Your task to perform on an android device: Go to ESPN.com Image 0: 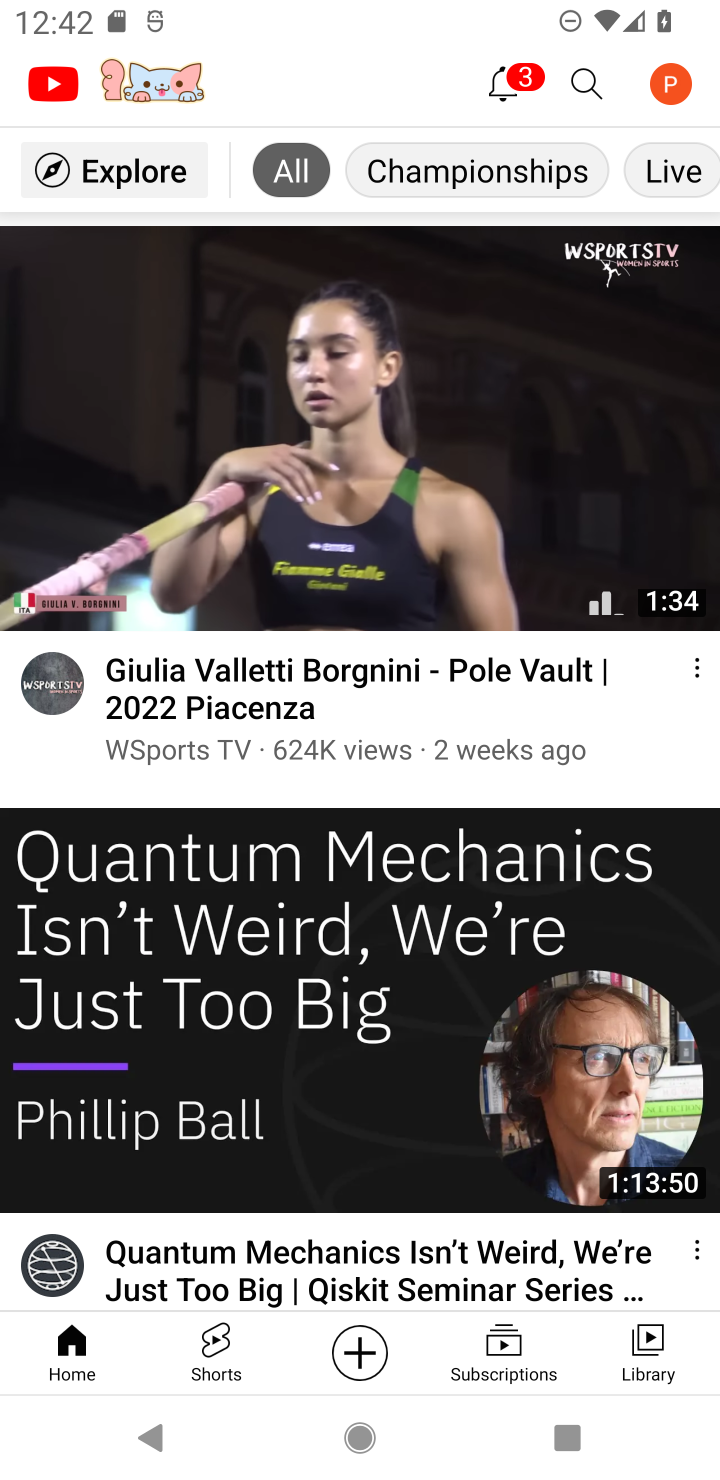
Step 0: press home button
Your task to perform on an android device: Go to ESPN.com Image 1: 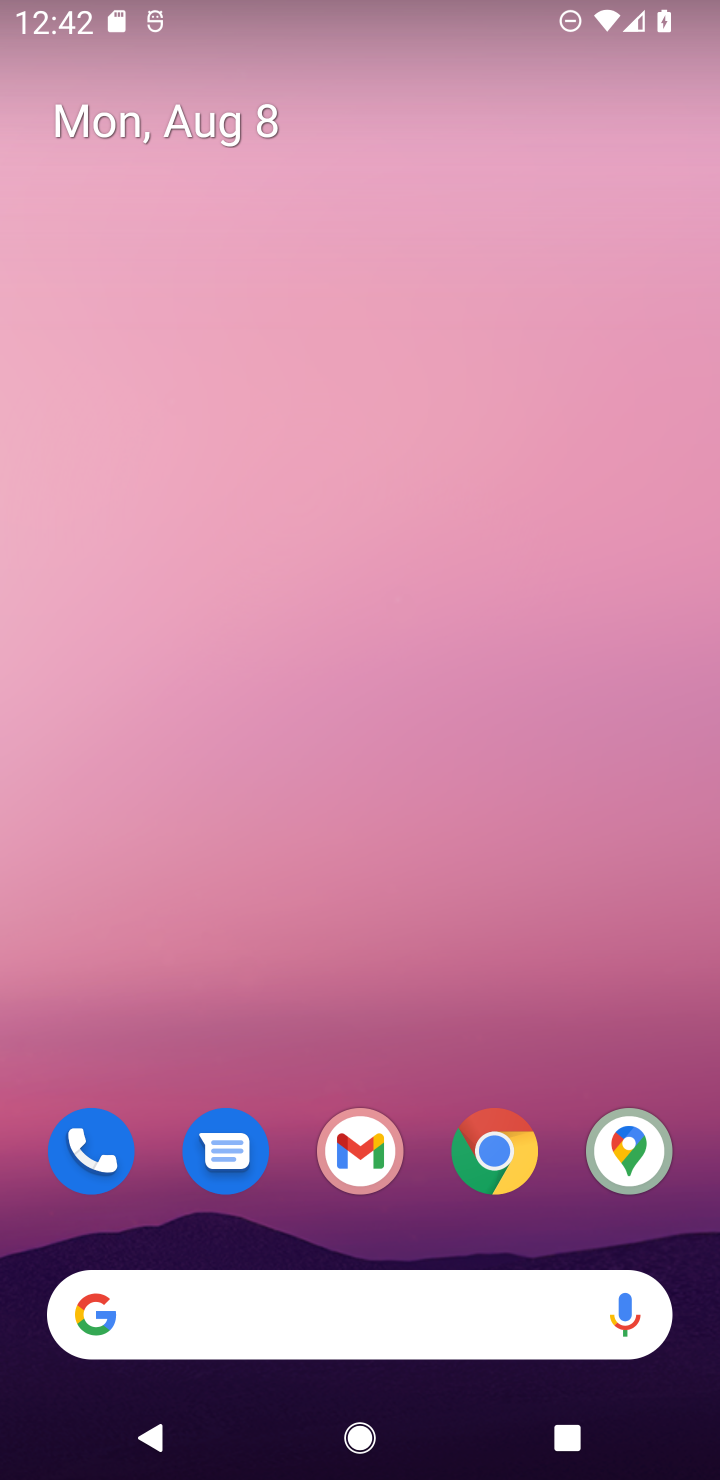
Step 1: click (502, 1153)
Your task to perform on an android device: Go to ESPN.com Image 2: 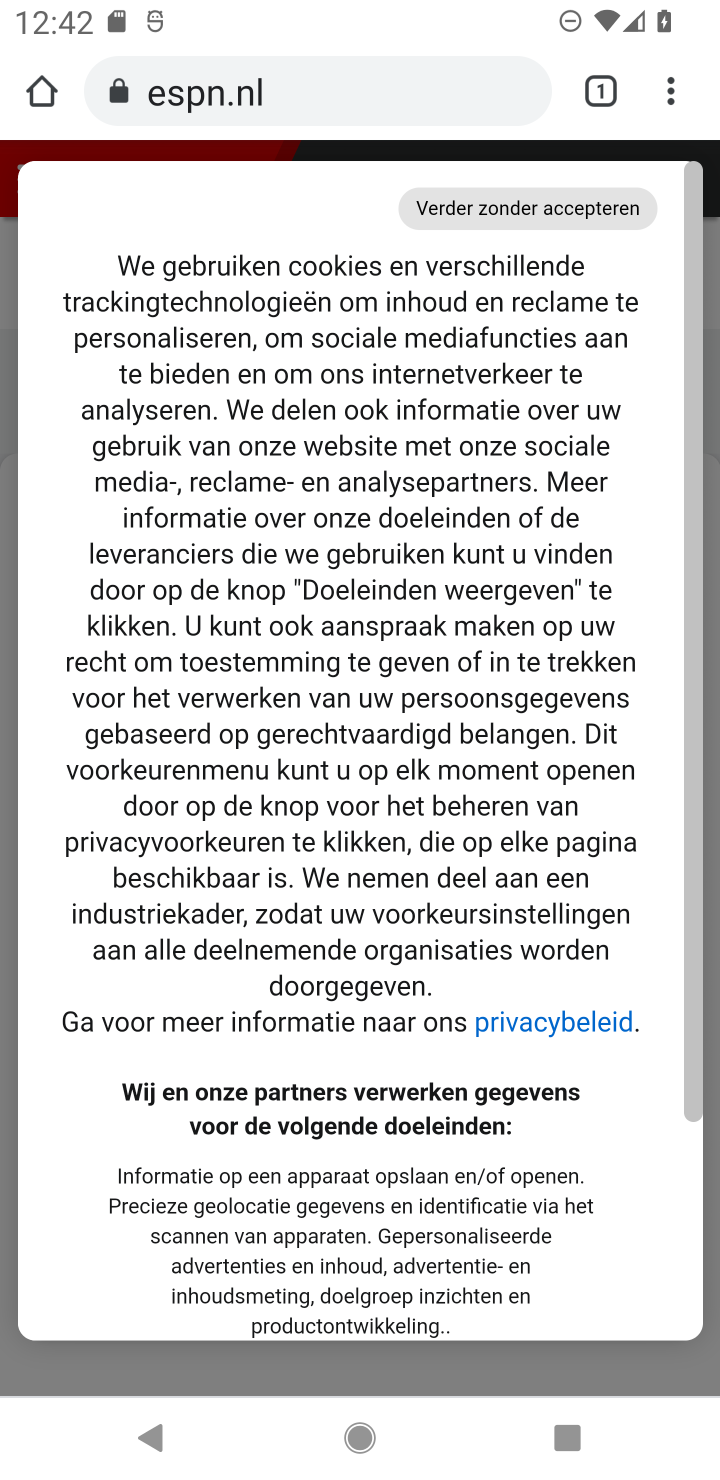
Step 2: task complete